Your task to perform on an android device: Open accessibility settings Image 0: 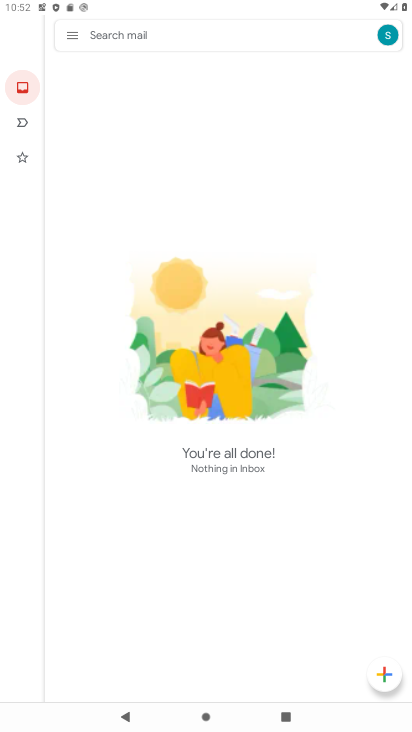
Step 0: press home button
Your task to perform on an android device: Open accessibility settings Image 1: 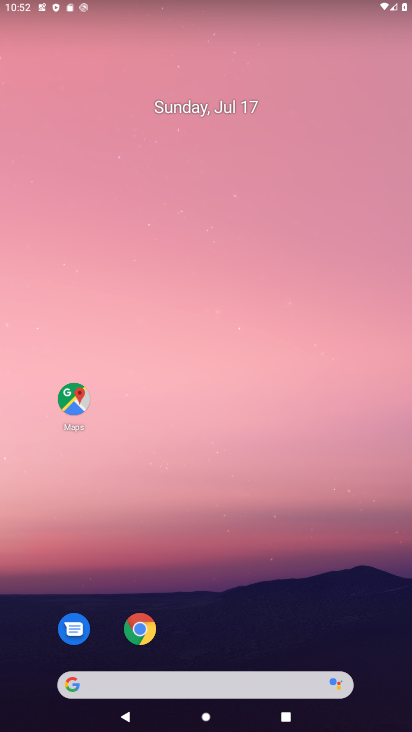
Step 1: drag from (287, 620) to (279, 146)
Your task to perform on an android device: Open accessibility settings Image 2: 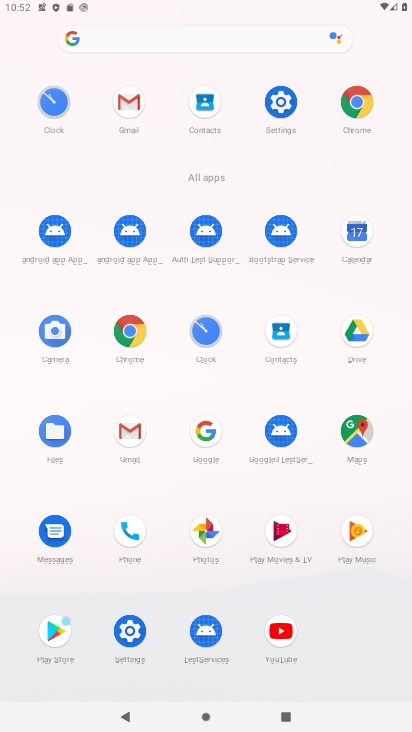
Step 2: click (280, 110)
Your task to perform on an android device: Open accessibility settings Image 3: 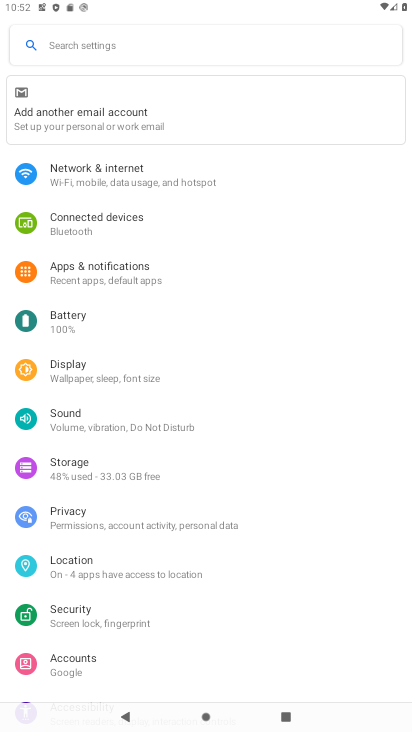
Step 3: drag from (195, 629) to (209, 402)
Your task to perform on an android device: Open accessibility settings Image 4: 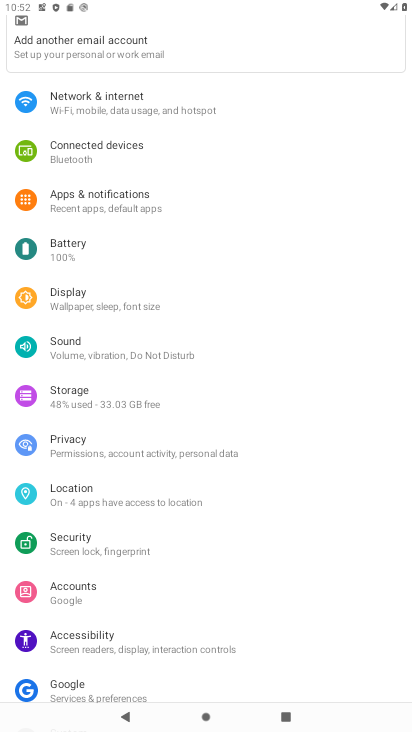
Step 4: click (120, 638)
Your task to perform on an android device: Open accessibility settings Image 5: 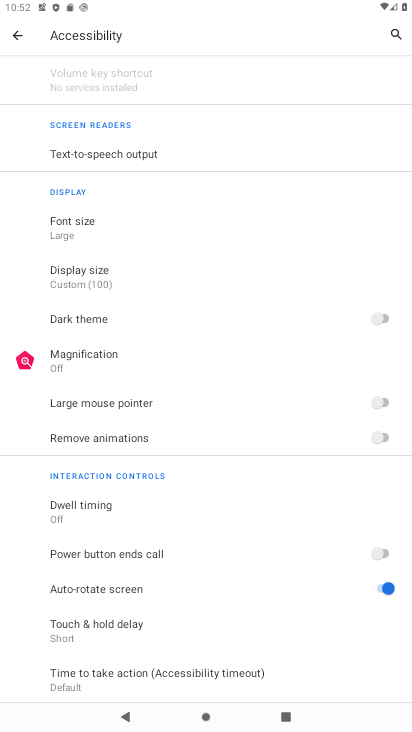
Step 5: task complete